Your task to perform on an android device: add a contact Image 0: 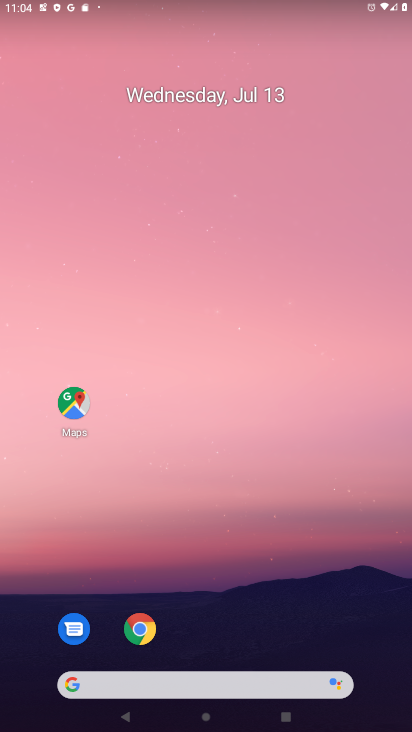
Step 0: drag from (280, 633) to (269, 107)
Your task to perform on an android device: add a contact Image 1: 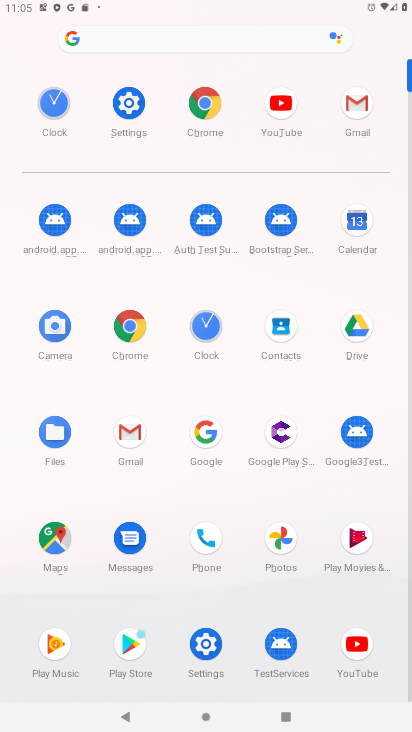
Step 1: click (277, 360)
Your task to perform on an android device: add a contact Image 2: 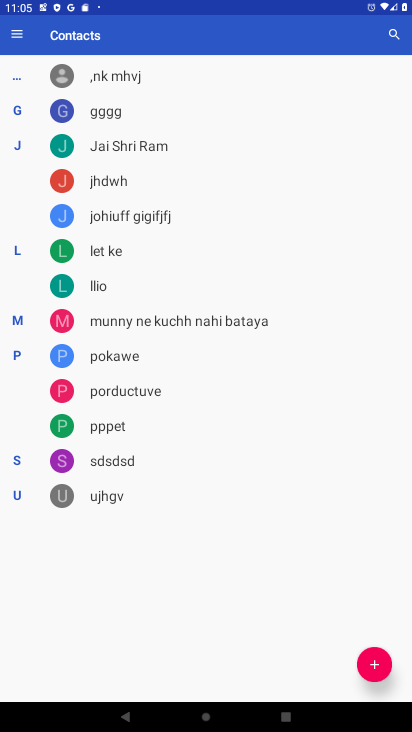
Step 2: click (379, 671)
Your task to perform on an android device: add a contact Image 3: 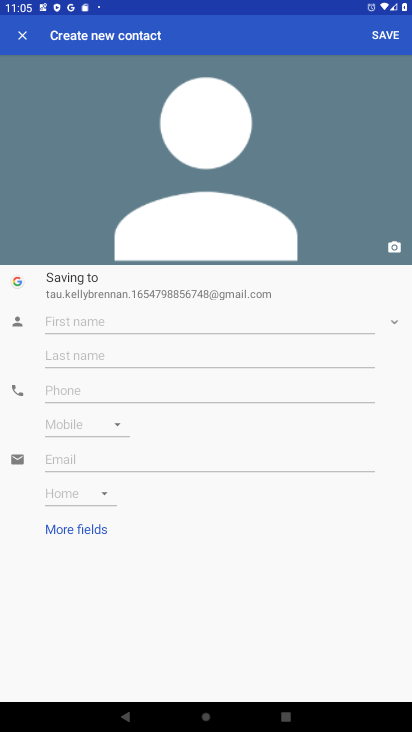
Step 3: click (305, 329)
Your task to perform on an android device: add a contact Image 4: 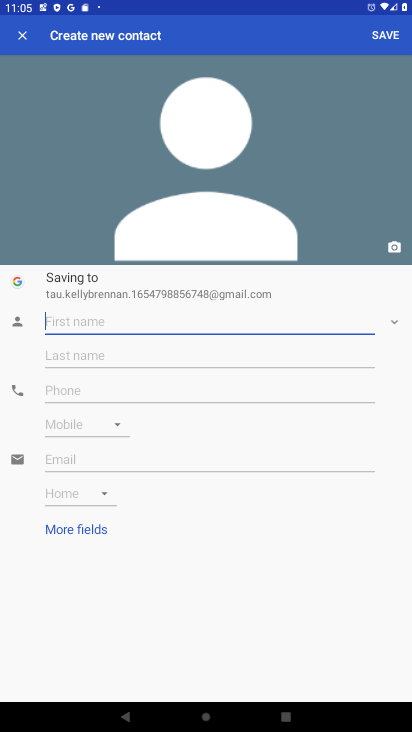
Step 4: type ",hkj"
Your task to perform on an android device: add a contact Image 5: 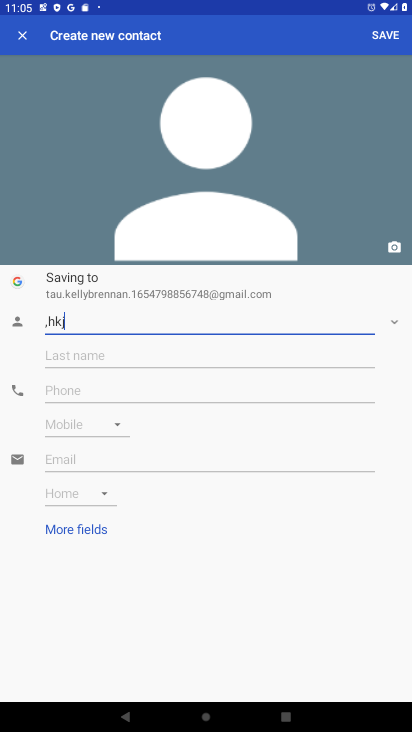
Step 5: click (192, 346)
Your task to perform on an android device: add a contact Image 6: 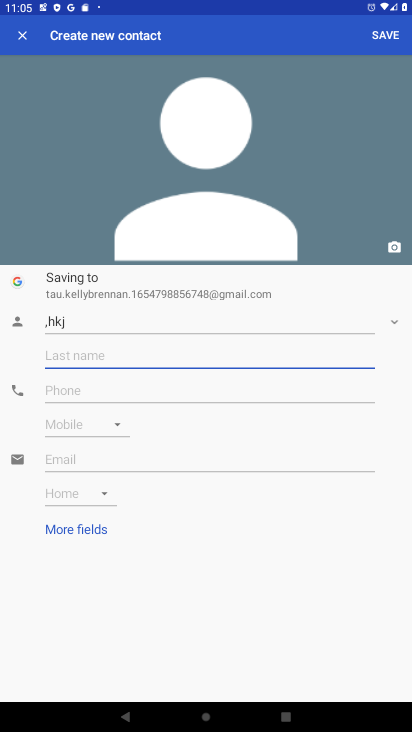
Step 6: type "jvcghh"
Your task to perform on an android device: add a contact Image 7: 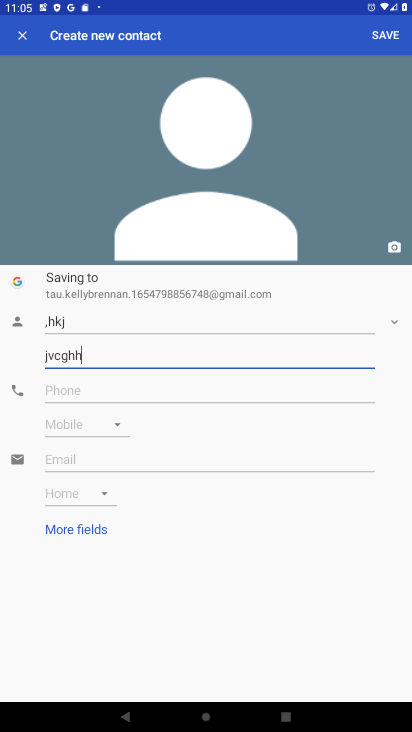
Step 7: click (221, 396)
Your task to perform on an android device: add a contact Image 8: 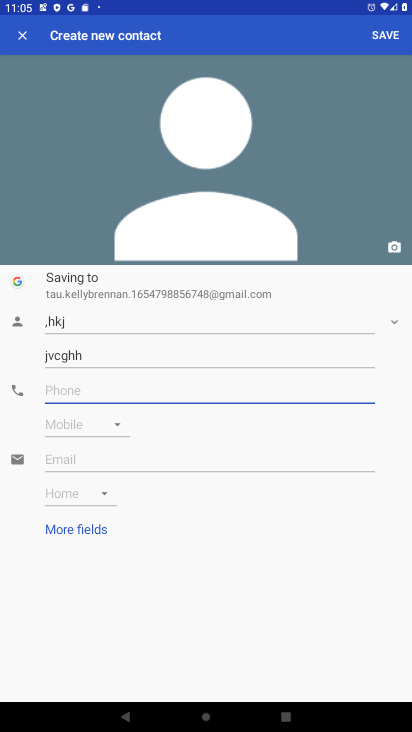
Step 8: type "i89796786857"
Your task to perform on an android device: add a contact Image 9: 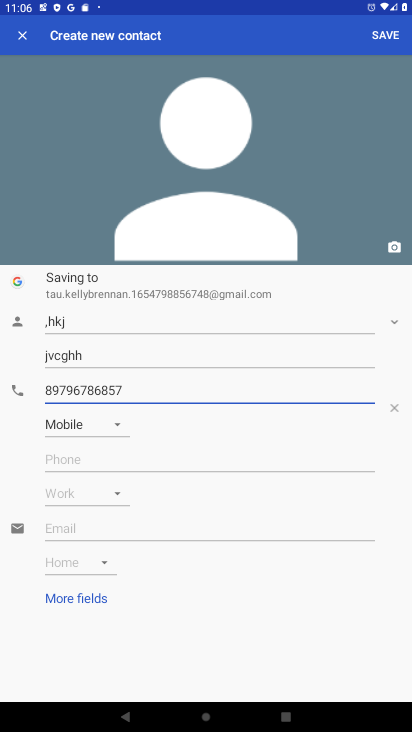
Step 9: click (377, 35)
Your task to perform on an android device: add a contact Image 10: 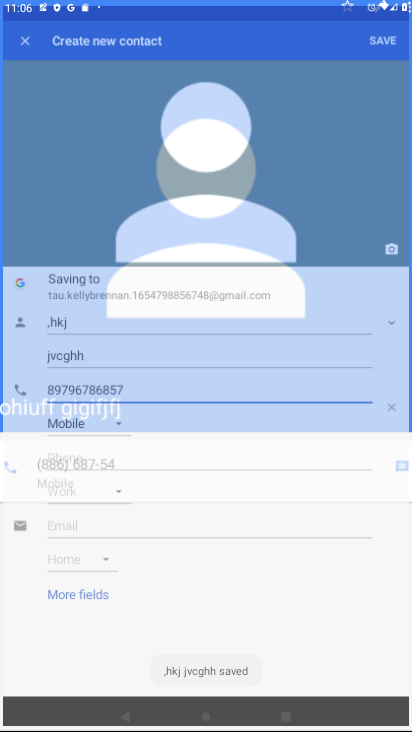
Step 10: task complete